Your task to perform on an android device: turn pop-ups on in chrome Image 0: 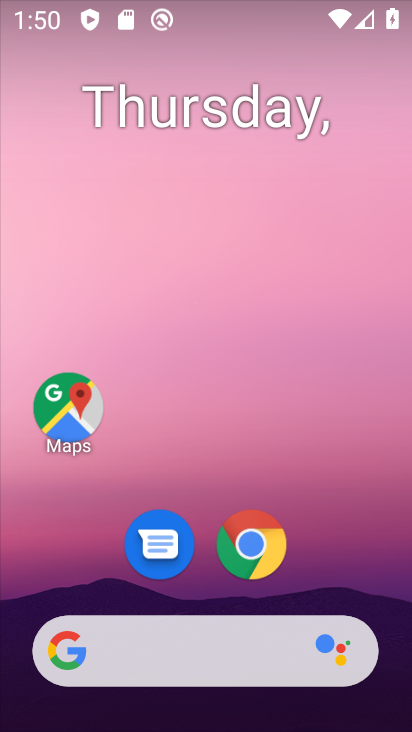
Step 0: click (252, 539)
Your task to perform on an android device: turn pop-ups on in chrome Image 1: 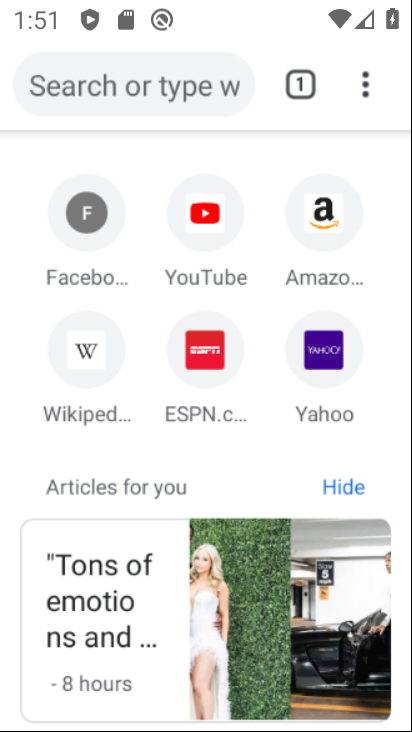
Step 1: click (369, 94)
Your task to perform on an android device: turn pop-ups on in chrome Image 2: 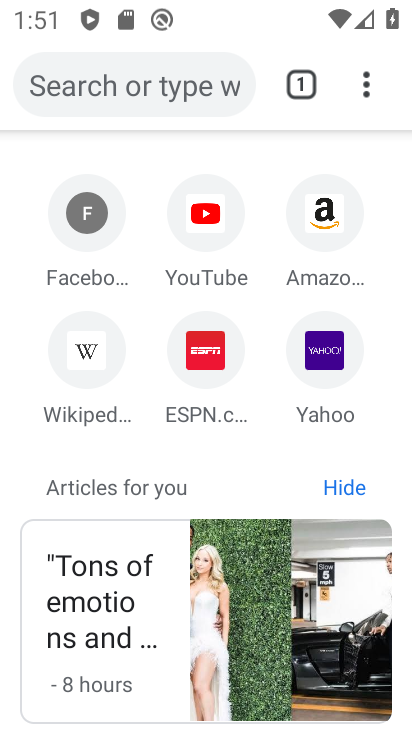
Step 2: click (368, 82)
Your task to perform on an android device: turn pop-ups on in chrome Image 3: 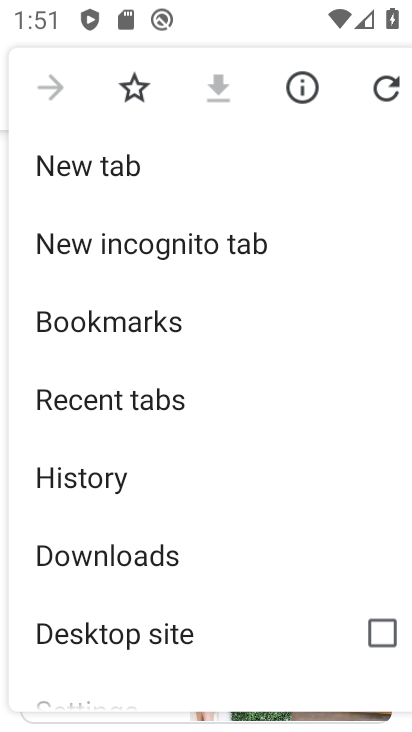
Step 3: click (79, 702)
Your task to perform on an android device: turn pop-ups on in chrome Image 4: 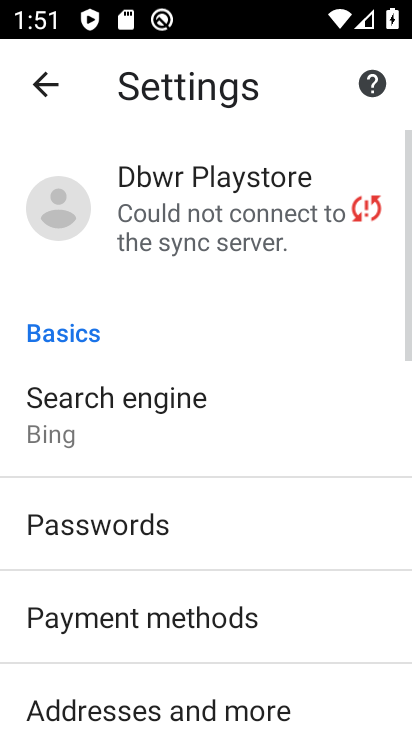
Step 4: drag from (78, 691) to (82, 174)
Your task to perform on an android device: turn pop-ups on in chrome Image 5: 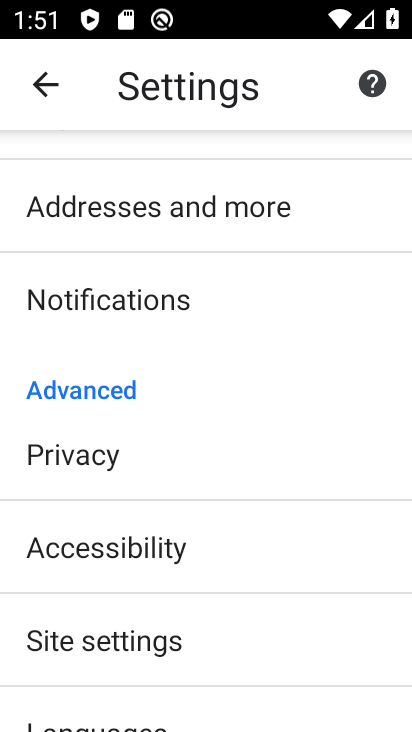
Step 5: click (46, 631)
Your task to perform on an android device: turn pop-ups on in chrome Image 6: 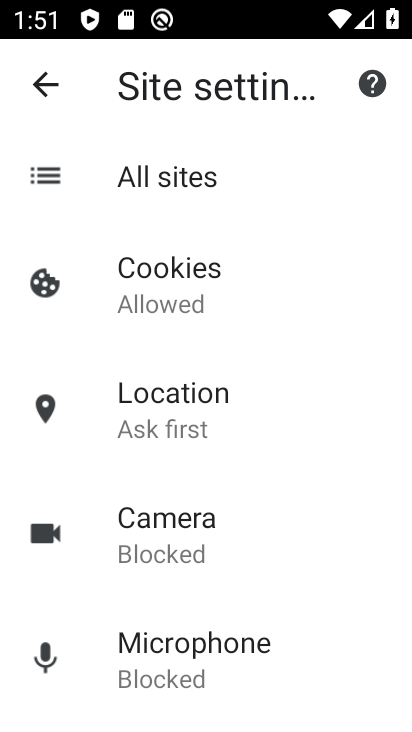
Step 6: drag from (84, 650) to (89, 193)
Your task to perform on an android device: turn pop-ups on in chrome Image 7: 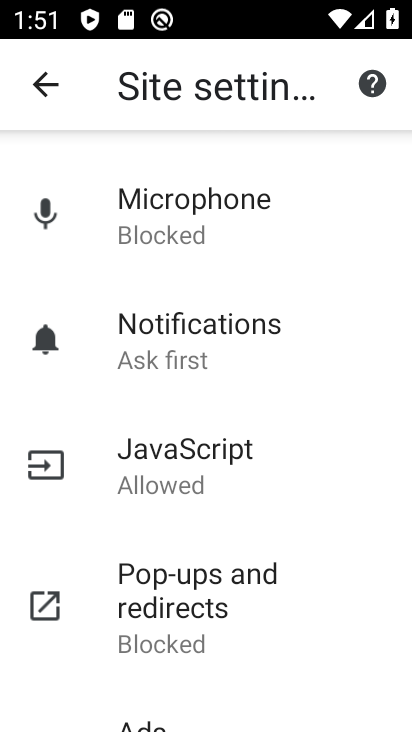
Step 7: click (171, 613)
Your task to perform on an android device: turn pop-ups on in chrome Image 8: 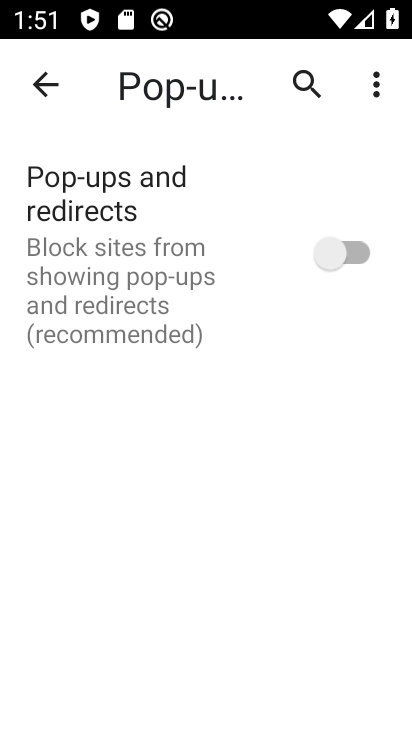
Step 8: click (333, 258)
Your task to perform on an android device: turn pop-ups on in chrome Image 9: 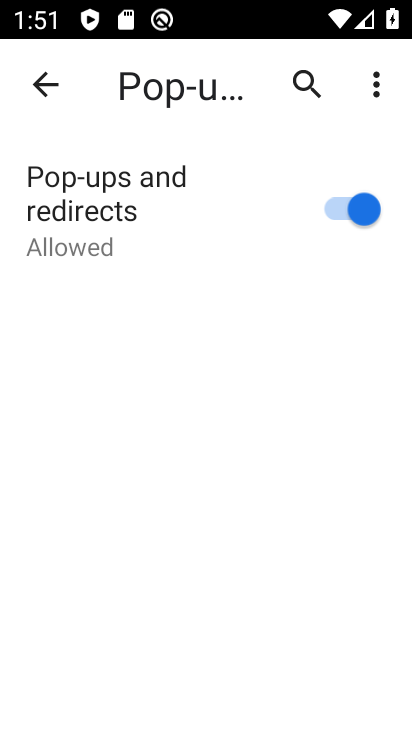
Step 9: task complete